Your task to perform on an android device: set the stopwatch Image 0: 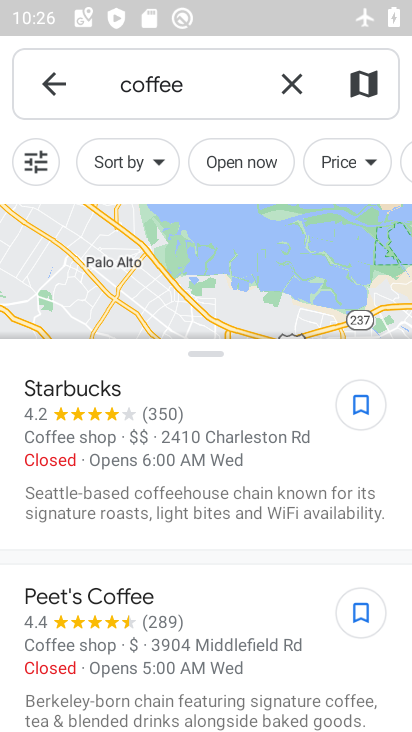
Step 0: press home button
Your task to perform on an android device: set the stopwatch Image 1: 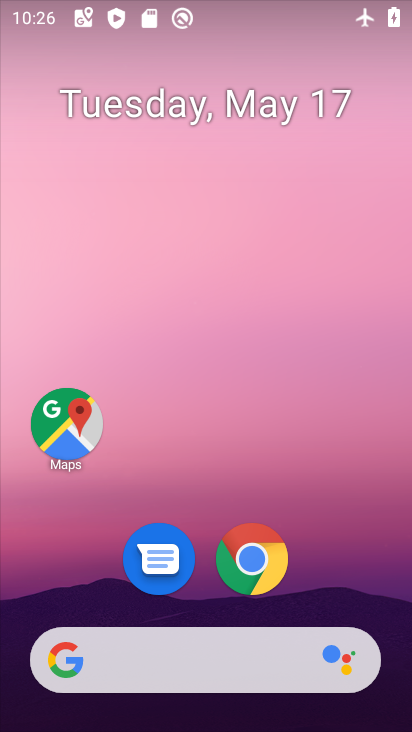
Step 1: drag from (225, 627) to (170, 139)
Your task to perform on an android device: set the stopwatch Image 2: 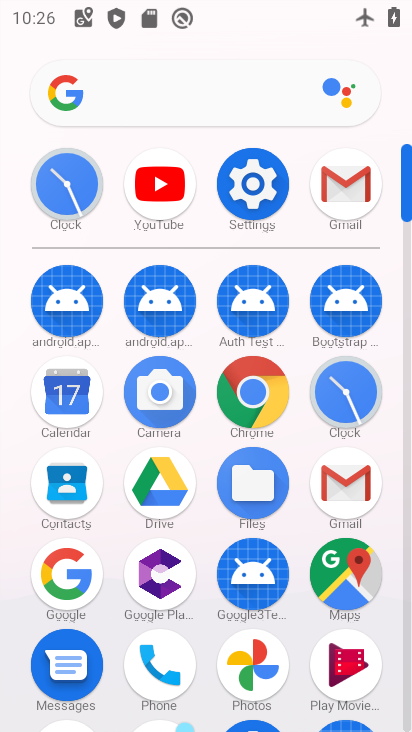
Step 2: click (360, 386)
Your task to perform on an android device: set the stopwatch Image 3: 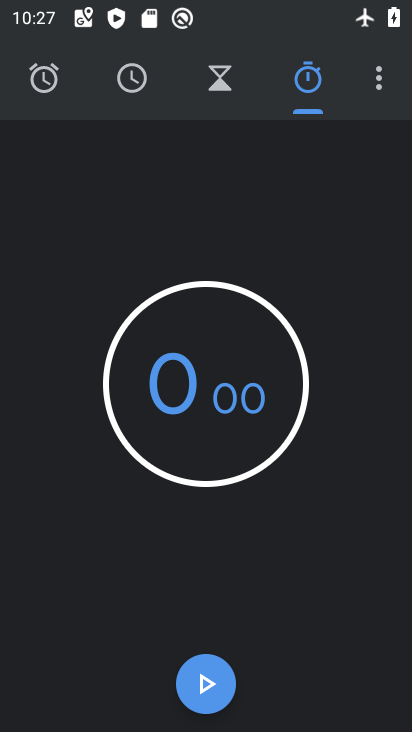
Step 3: task complete